Your task to perform on an android device: set the stopwatch Image 0: 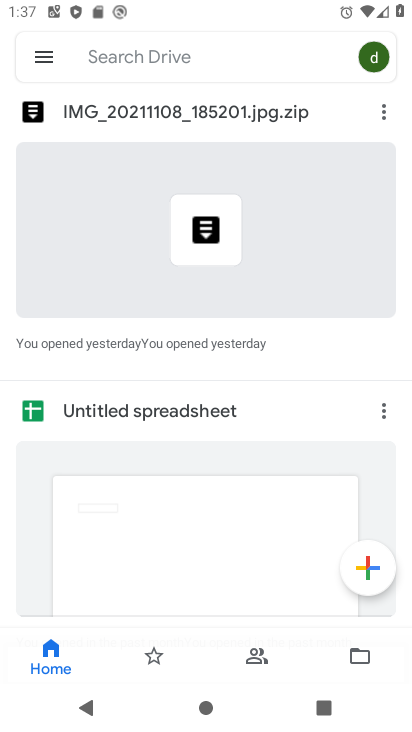
Step 0: press home button
Your task to perform on an android device: set the stopwatch Image 1: 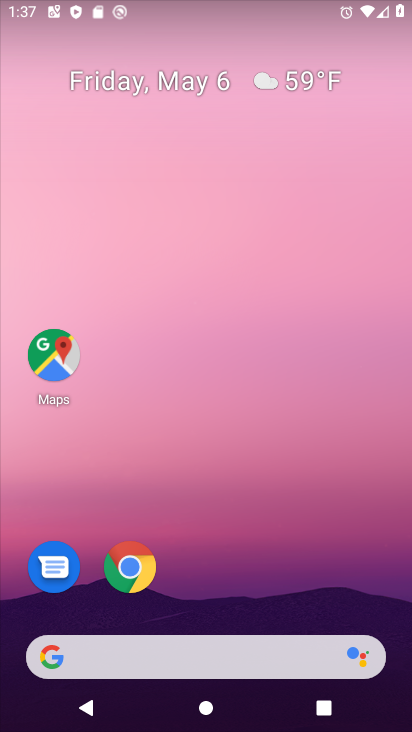
Step 1: drag from (315, 564) to (296, 18)
Your task to perform on an android device: set the stopwatch Image 2: 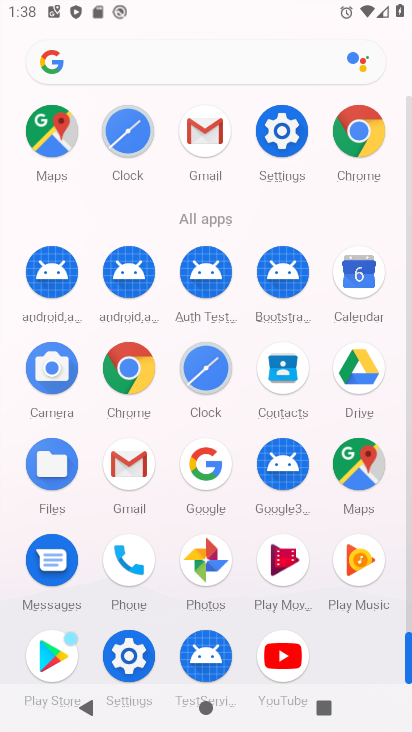
Step 2: click (210, 373)
Your task to perform on an android device: set the stopwatch Image 3: 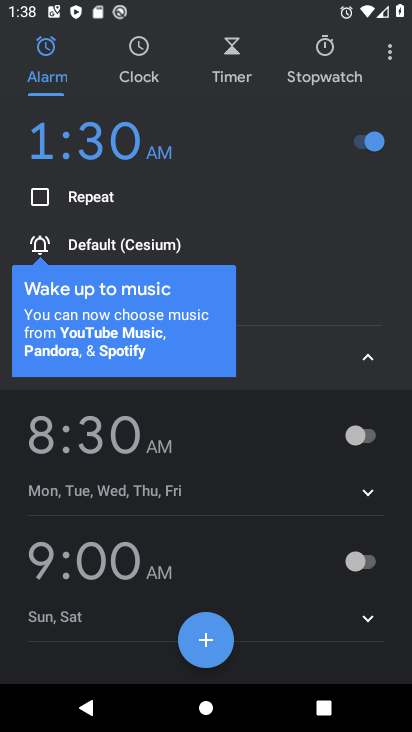
Step 3: click (343, 50)
Your task to perform on an android device: set the stopwatch Image 4: 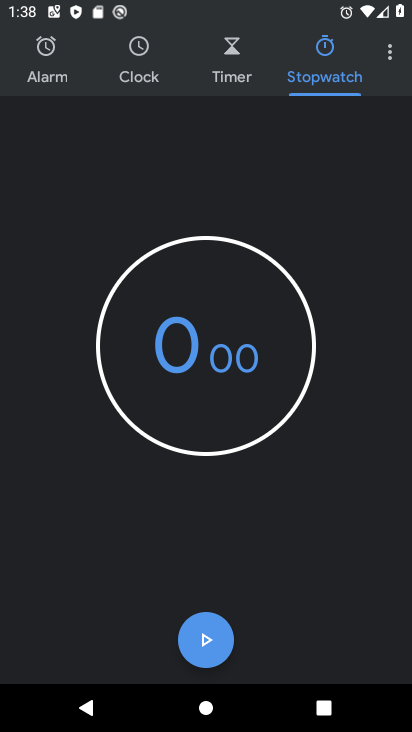
Step 4: task complete